Your task to perform on an android device: Open Chrome and go to settings Image 0: 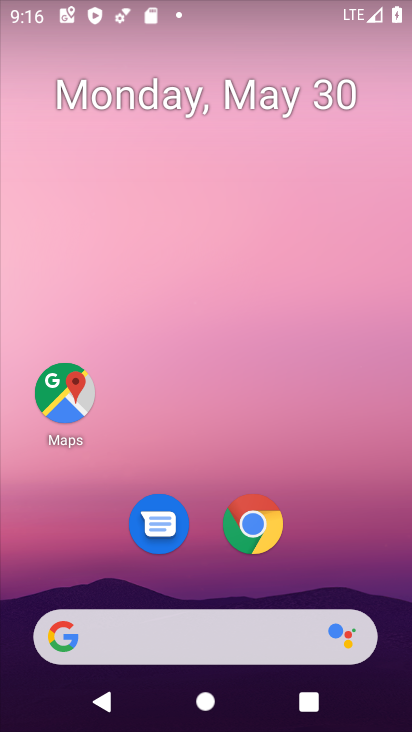
Step 0: click (254, 519)
Your task to perform on an android device: Open Chrome and go to settings Image 1: 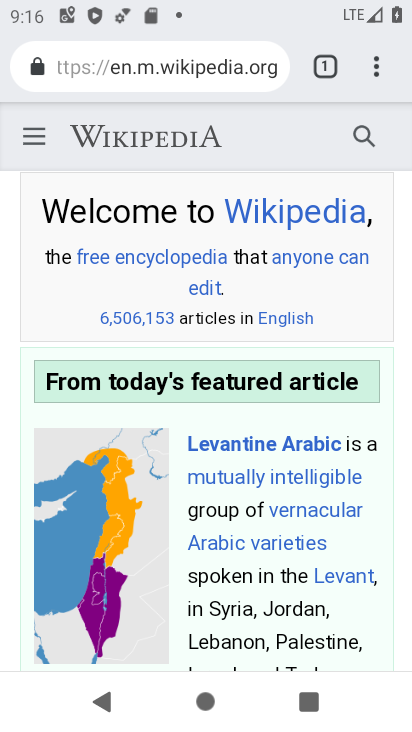
Step 1: click (367, 68)
Your task to perform on an android device: Open Chrome and go to settings Image 2: 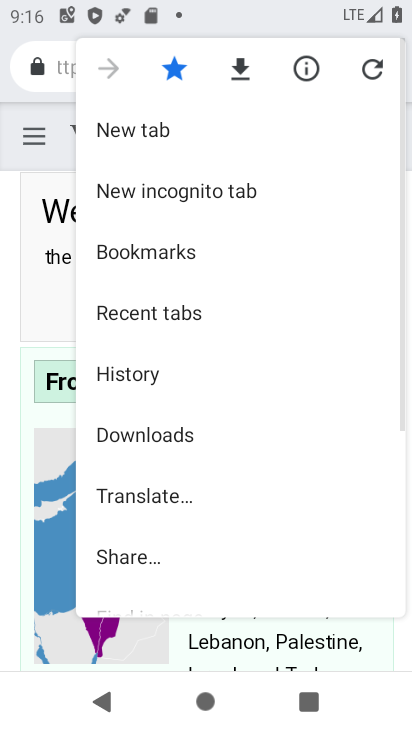
Step 2: drag from (237, 456) to (258, 139)
Your task to perform on an android device: Open Chrome and go to settings Image 3: 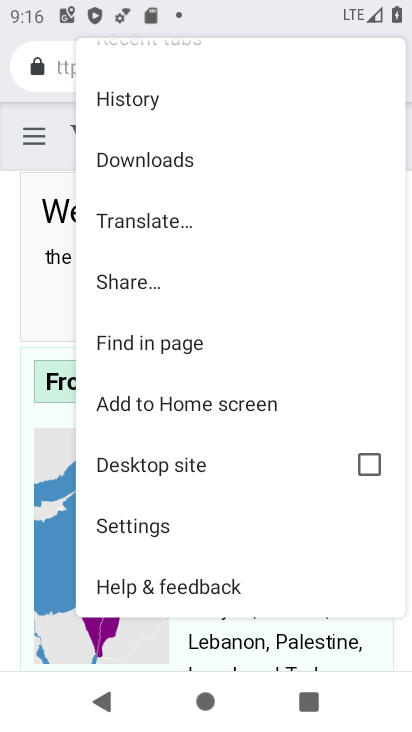
Step 3: click (199, 520)
Your task to perform on an android device: Open Chrome and go to settings Image 4: 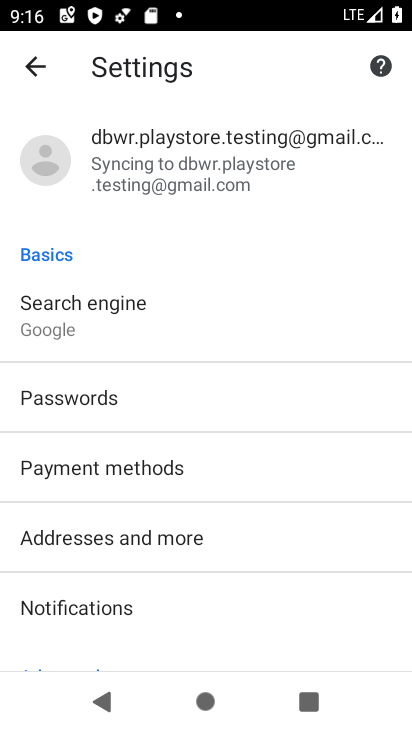
Step 4: task complete